Your task to perform on an android device: check android version Image 0: 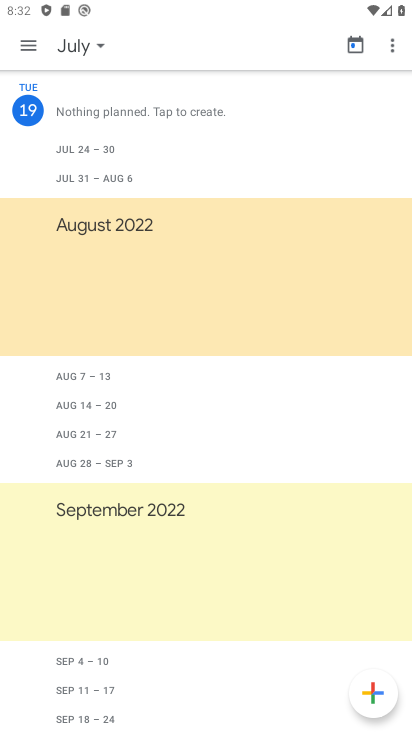
Step 0: press home button
Your task to perform on an android device: check android version Image 1: 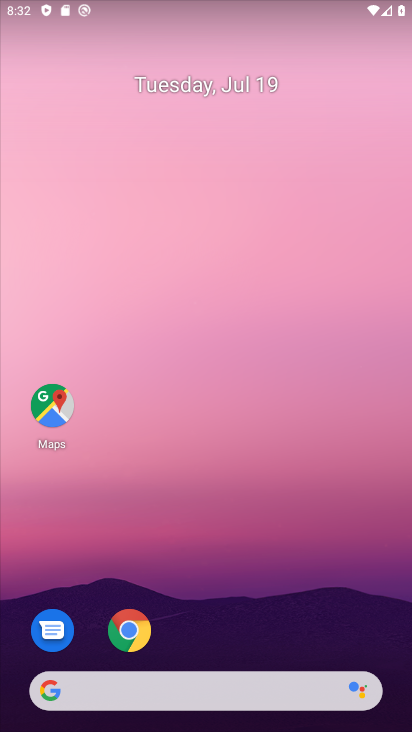
Step 1: drag from (273, 631) to (253, 178)
Your task to perform on an android device: check android version Image 2: 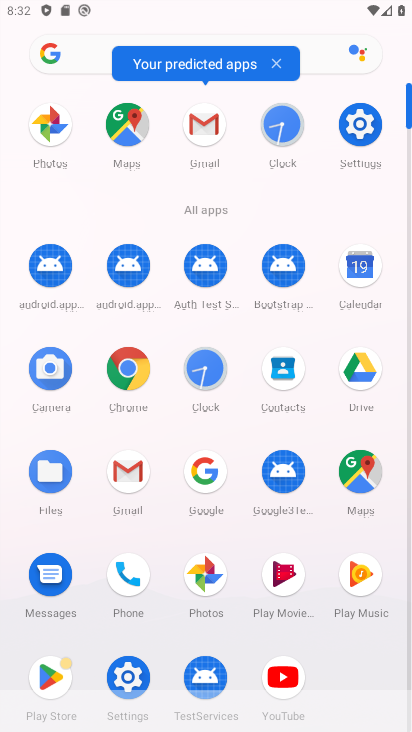
Step 2: click (356, 129)
Your task to perform on an android device: check android version Image 3: 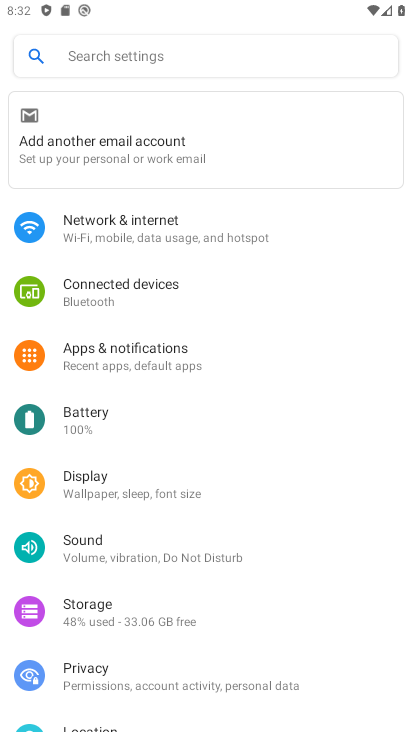
Step 3: drag from (222, 650) to (195, 114)
Your task to perform on an android device: check android version Image 4: 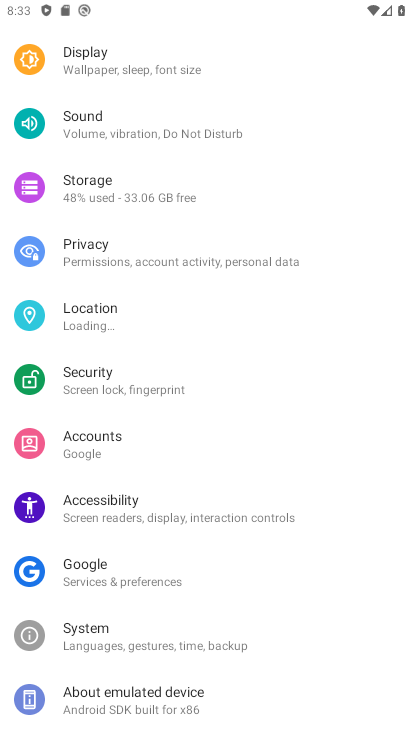
Step 4: click (201, 689)
Your task to perform on an android device: check android version Image 5: 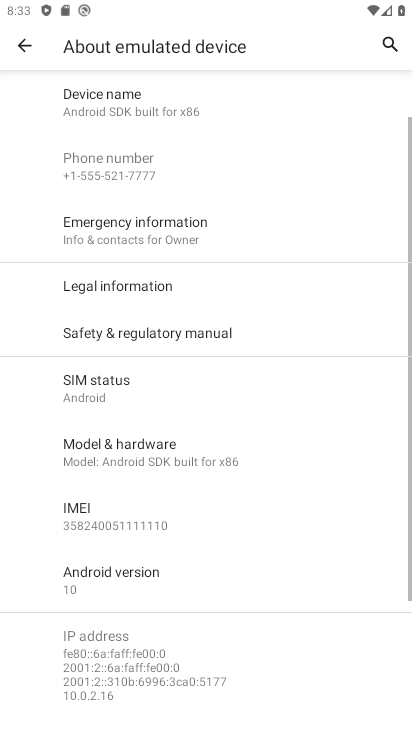
Step 5: click (150, 596)
Your task to perform on an android device: check android version Image 6: 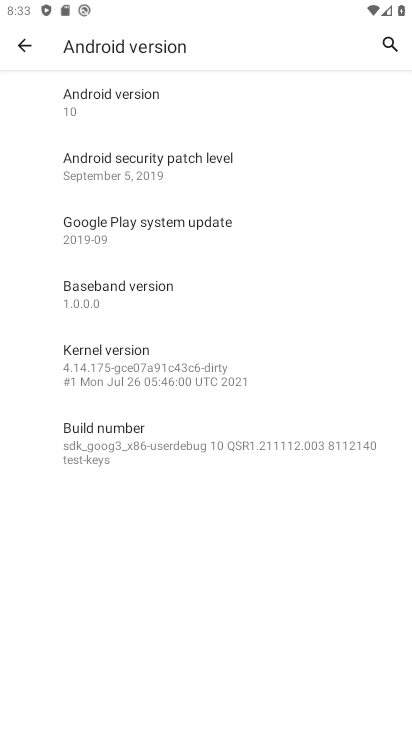
Step 6: click (270, 102)
Your task to perform on an android device: check android version Image 7: 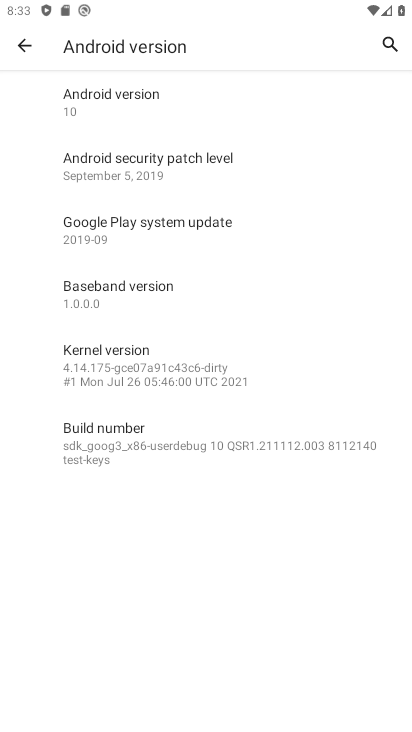
Step 7: task complete